Your task to perform on an android device: toggle location history Image 0: 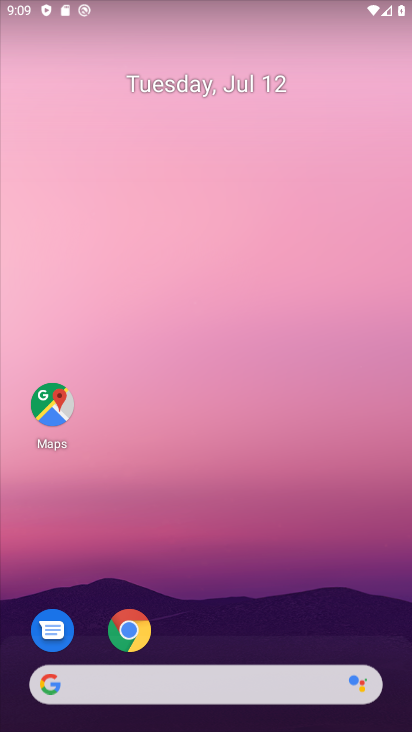
Step 0: drag from (215, 659) to (269, 254)
Your task to perform on an android device: toggle location history Image 1: 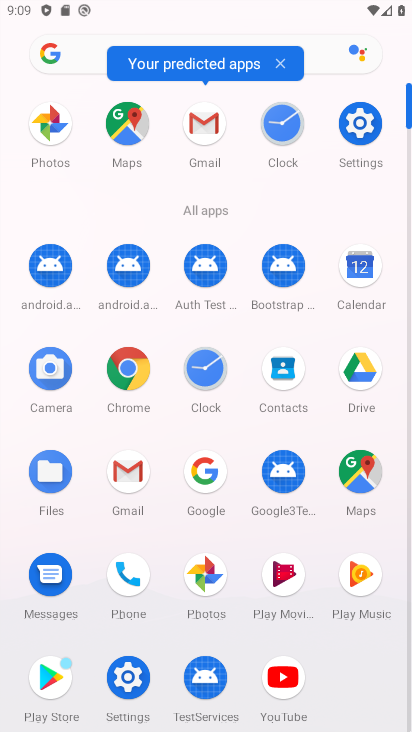
Step 1: click (137, 679)
Your task to perform on an android device: toggle location history Image 2: 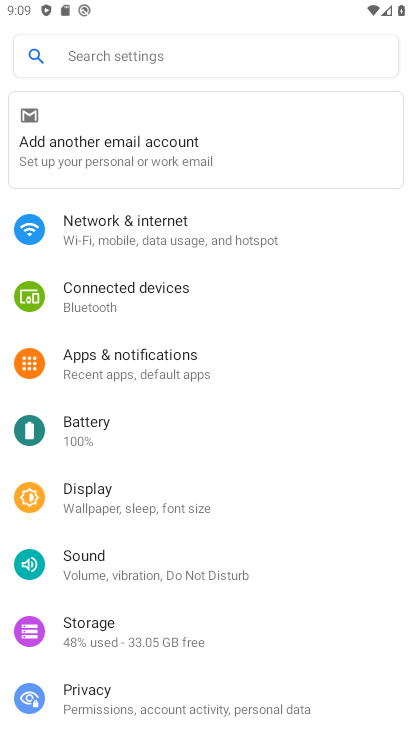
Step 2: drag from (112, 680) to (194, 448)
Your task to perform on an android device: toggle location history Image 3: 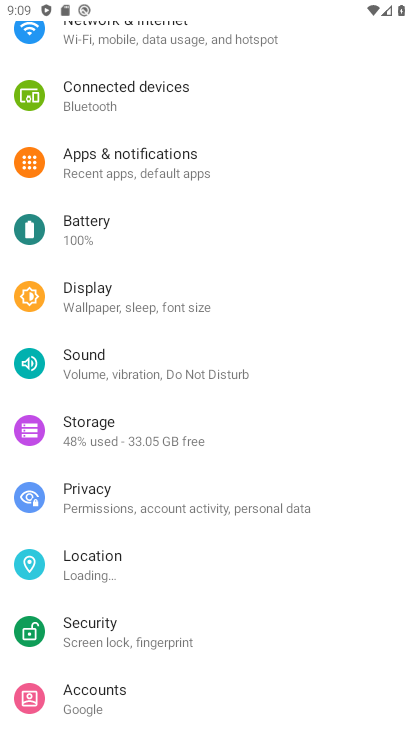
Step 3: click (99, 570)
Your task to perform on an android device: toggle location history Image 4: 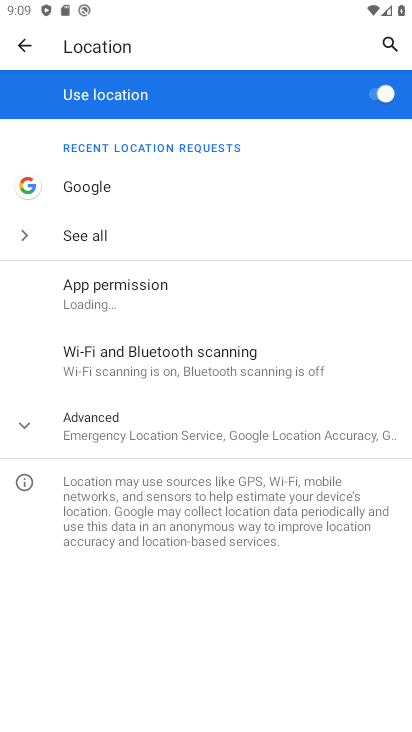
Step 4: click (163, 442)
Your task to perform on an android device: toggle location history Image 5: 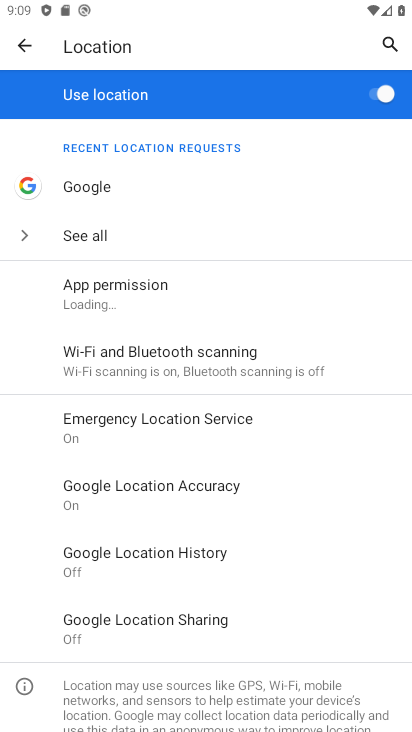
Step 5: click (181, 565)
Your task to perform on an android device: toggle location history Image 6: 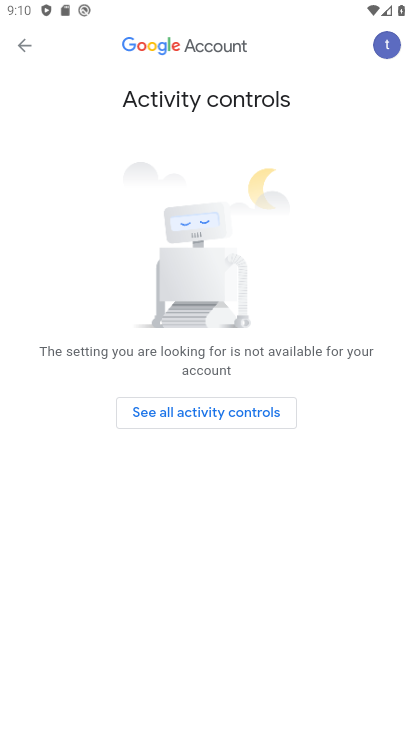
Step 6: task complete